Your task to perform on an android device: check out phone information Image 0: 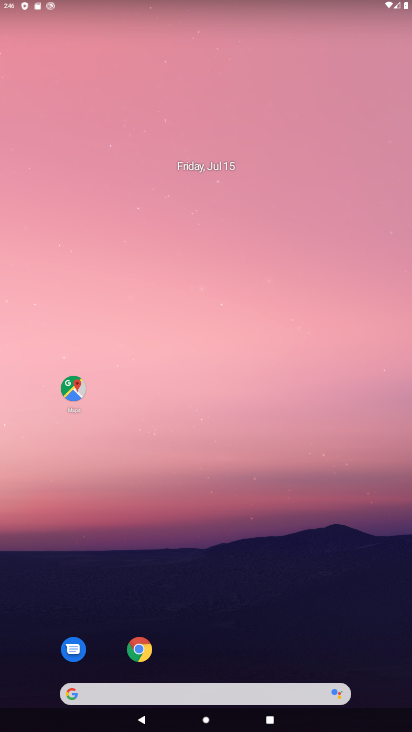
Step 0: drag from (382, 660) to (283, 128)
Your task to perform on an android device: check out phone information Image 1: 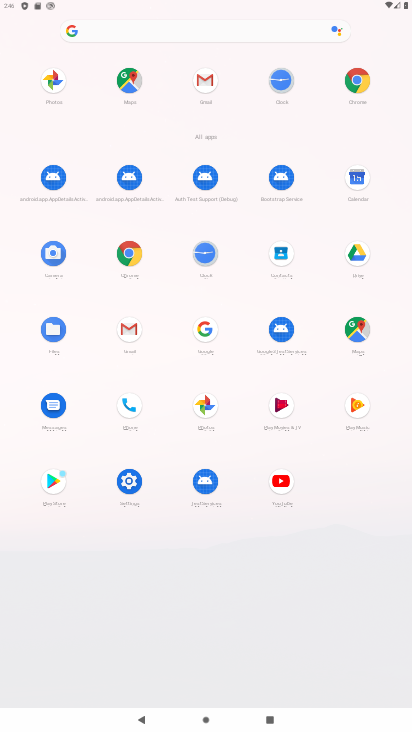
Step 1: click (125, 482)
Your task to perform on an android device: check out phone information Image 2: 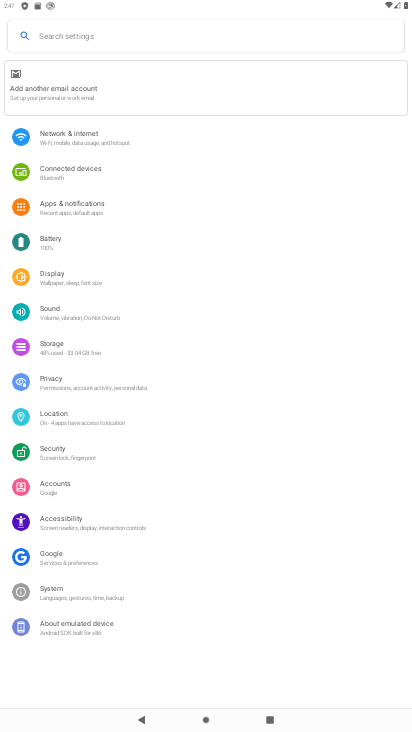
Step 2: click (142, 625)
Your task to perform on an android device: check out phone information Image 3: 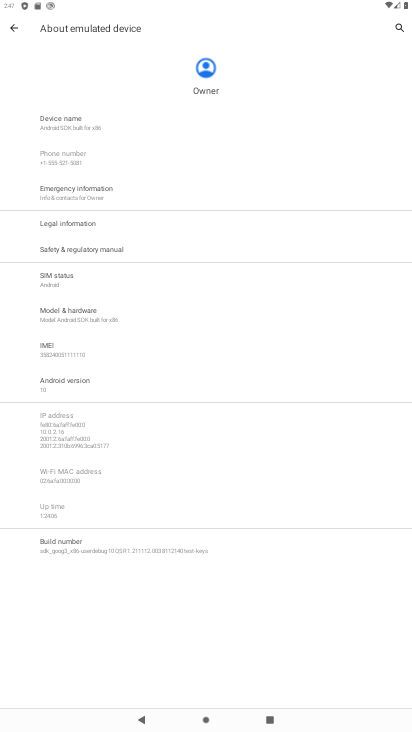
Step 3: task complete